Your task to perform on an android device: change your default location settings in chrome Image 0: 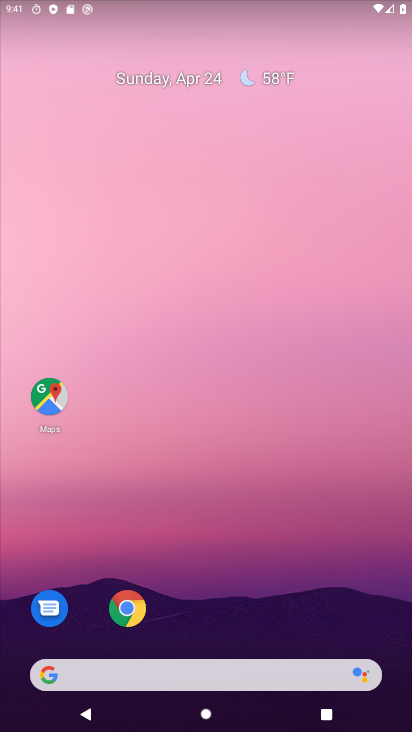
Step 0: drag from (355, 610) to (363, 106)
Your task to perform on an android device: change your default location settings in chrome Image 1: 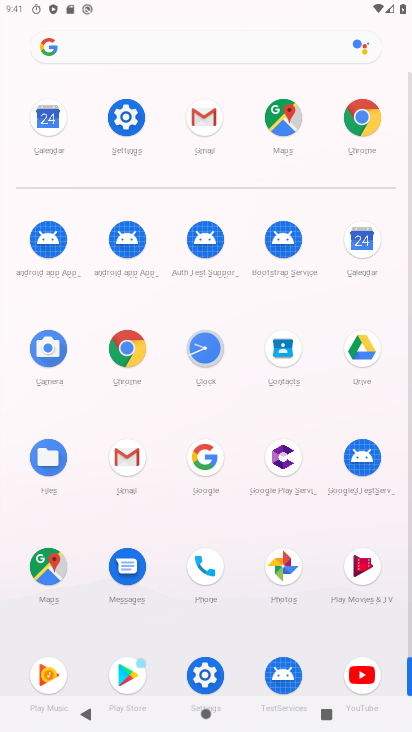
Step 1: click (369, 116)
Your task to perform on an android device: change your default location settings in chrome Image 2: 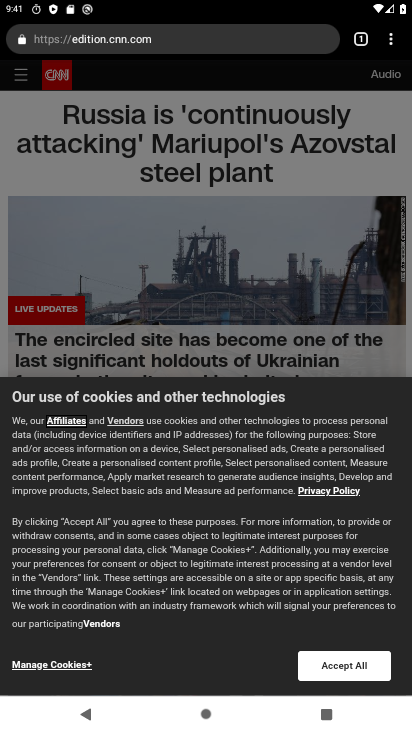
Step 2: click (397, 40)
Your task to perform on an android device: change your default location settings in chrome Image 3: 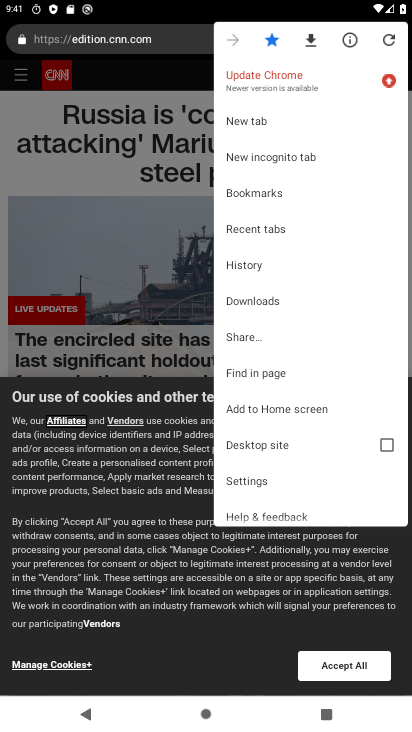
Step 3: click (293, 487)
Your task to perform on an android device: change your default location settings in chrome Image 4: 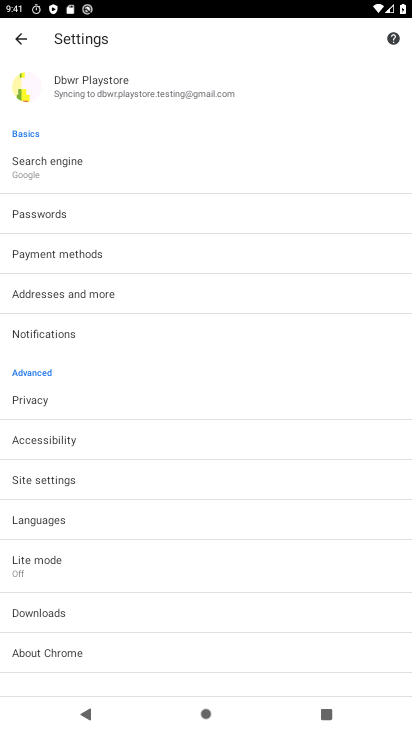
Step 4: click (261, 490)
Your task to perform on an android device: change your default location settings in chrome Image 5: 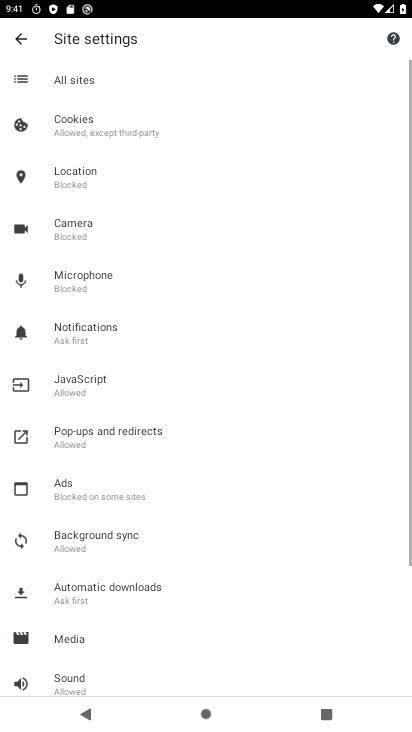
Step 5: drag from (285, 564) to (295, 397)
Your task to perform on an android device: change your default location settings in chrome Image 6: 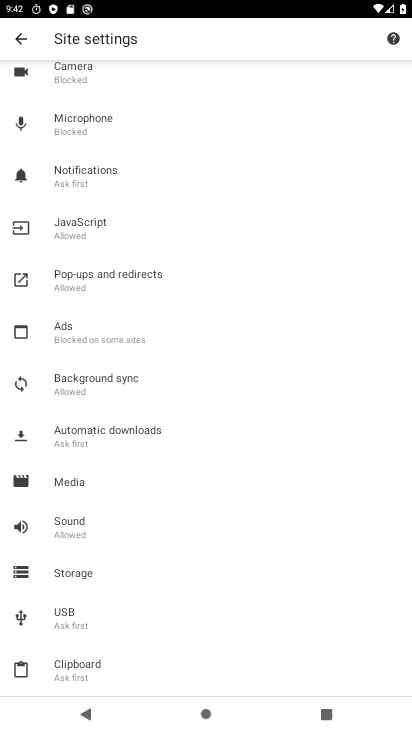
Step 6: drag from (279, 621) to (279, 454)
Your task to perform on an android device: change your default location settings in chrome Image 7: 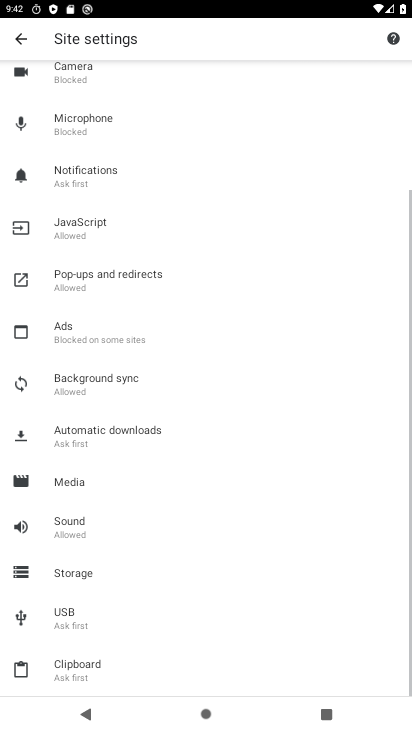
Step 7: drag from (273, 288) to (262, 398)
Your task to perform on an android device: change your default location settings in chrome Image 8: 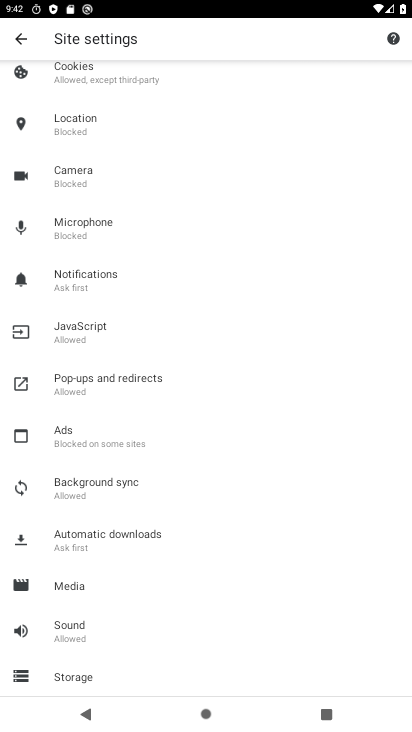
Step 8: drag from (245, 286) to (248, 379)
Your task to perform on an android device: change your default location settings in chrome Image 9: 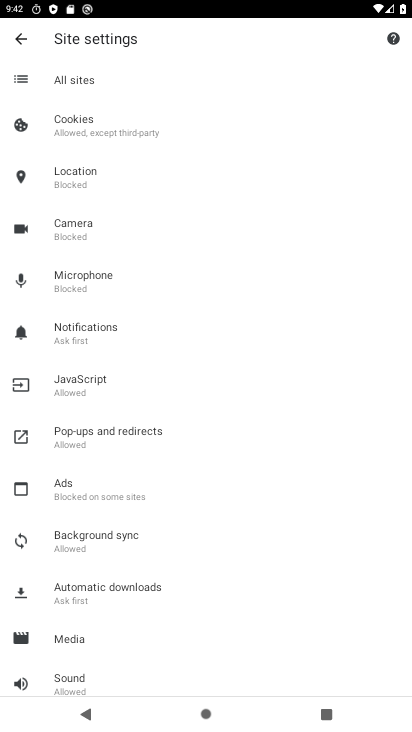
Step 9: drag from (240, 263) to (225, 369)
Your task to perform on an android device: change your default location settings in chrome Image 10: 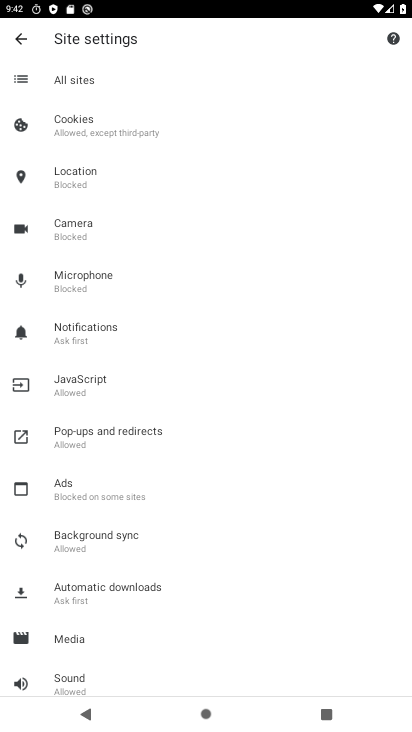
Step 10: drag from (222, 558) to (238, 425)
Your task to perform on an android device: change your default location settings in chrome Image 11: 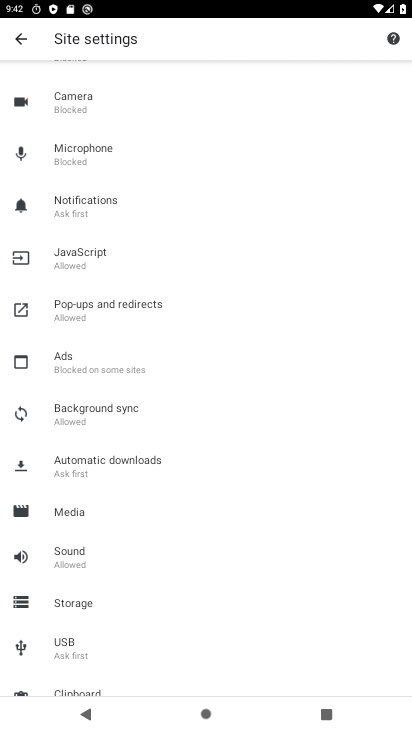
Step 11: drag from (248, 572) to (264, 431)
Your task to perform on an android device: change your default location settings in chrome Image 12: 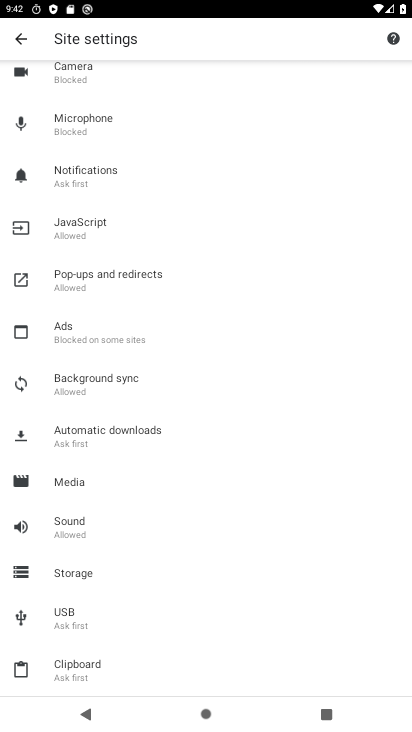
Step 12: drag from (257, 297) to (263, 388)
Your task to perform on an android device: change your default location settings in chrome Image 13: 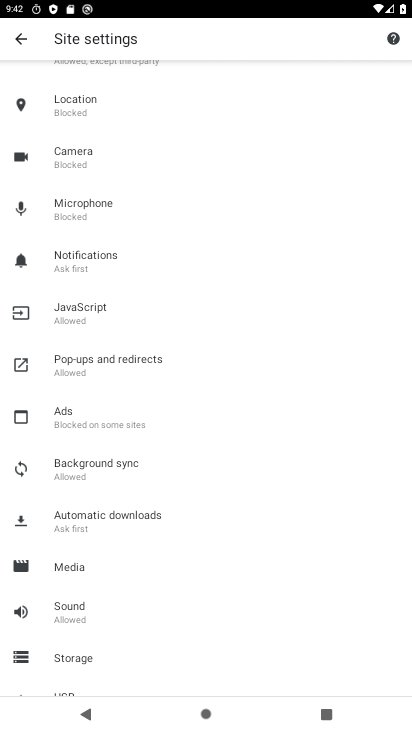
Step 13: drag from (250, 335) to (251, 374)
Your task to perform on an android device: change your default location settings in chrome Image 14: 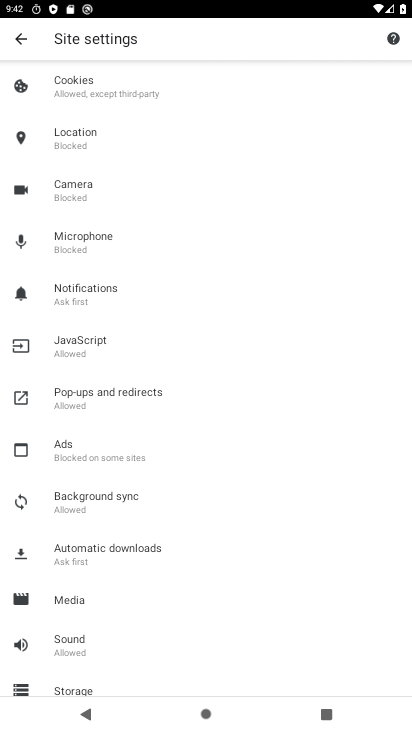
Step 14: drag from (232, 250) to (230, 337)
Your task to perform on an android device: change your default location settings in chrome Image 15: 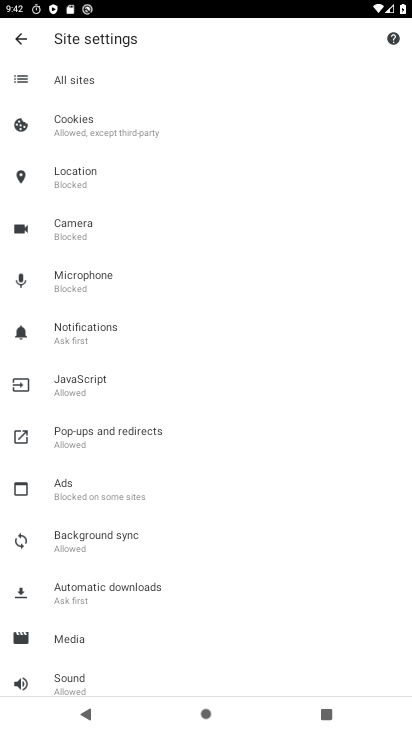
Step 15: click (117, 181)
Your task to perform on an android device: change your default location settings in chrome Image 16: 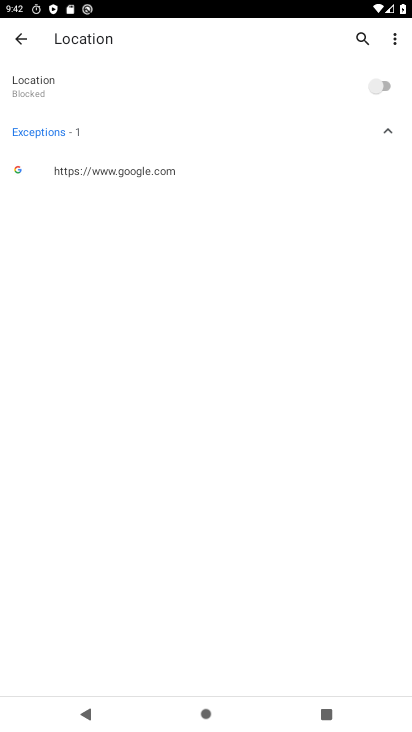
Step 16: click (376, 88)
Your task to perform on an android device: change your default location settings in chrome Image 17: 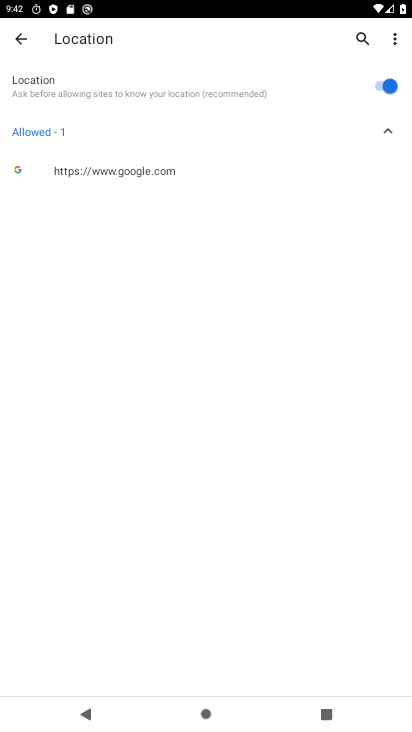
Step 17: task complete